Your task to perform on an android device: Open the phone app and click the voicemail tab. Image 0: 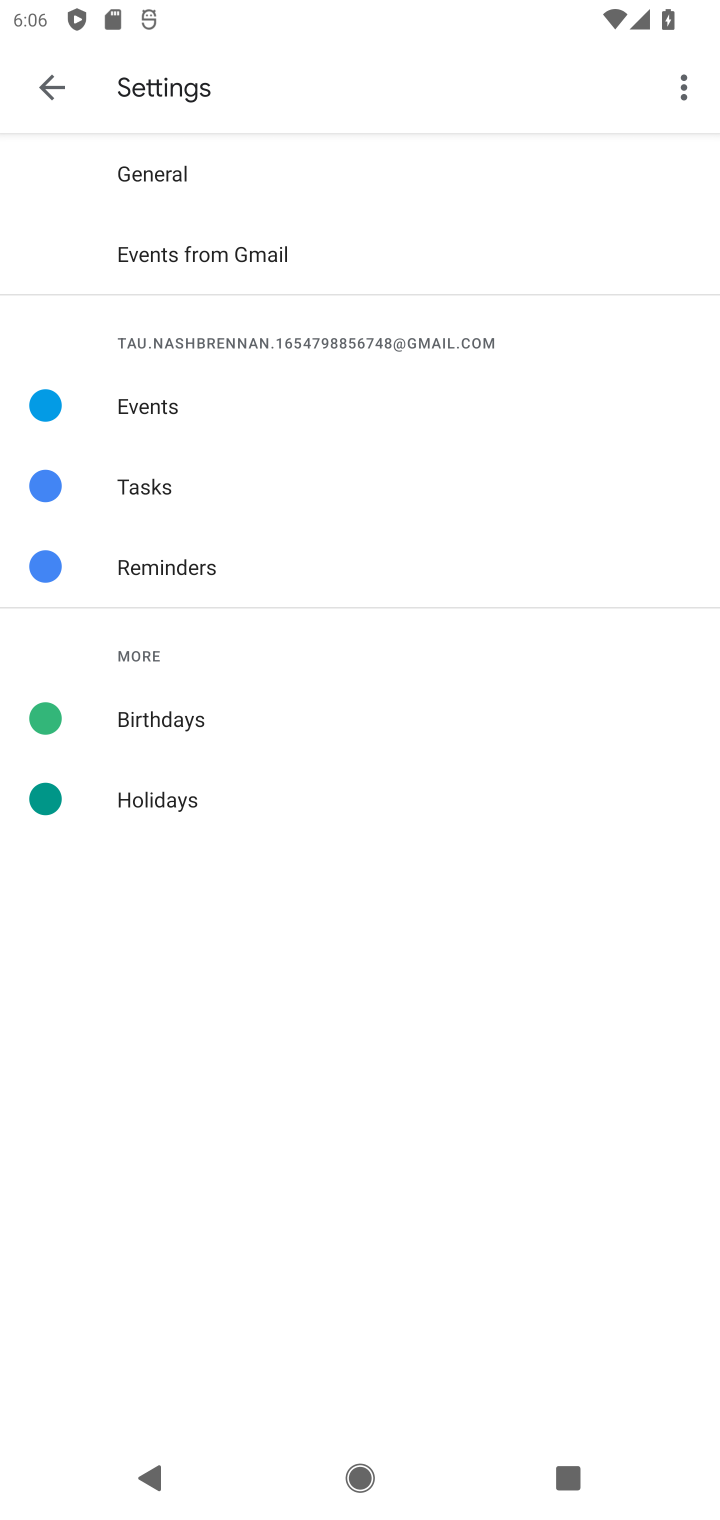
Step 0: press home button
Your task to perform on an android device: Open the phone app and click the voicemail tab. Image 1: 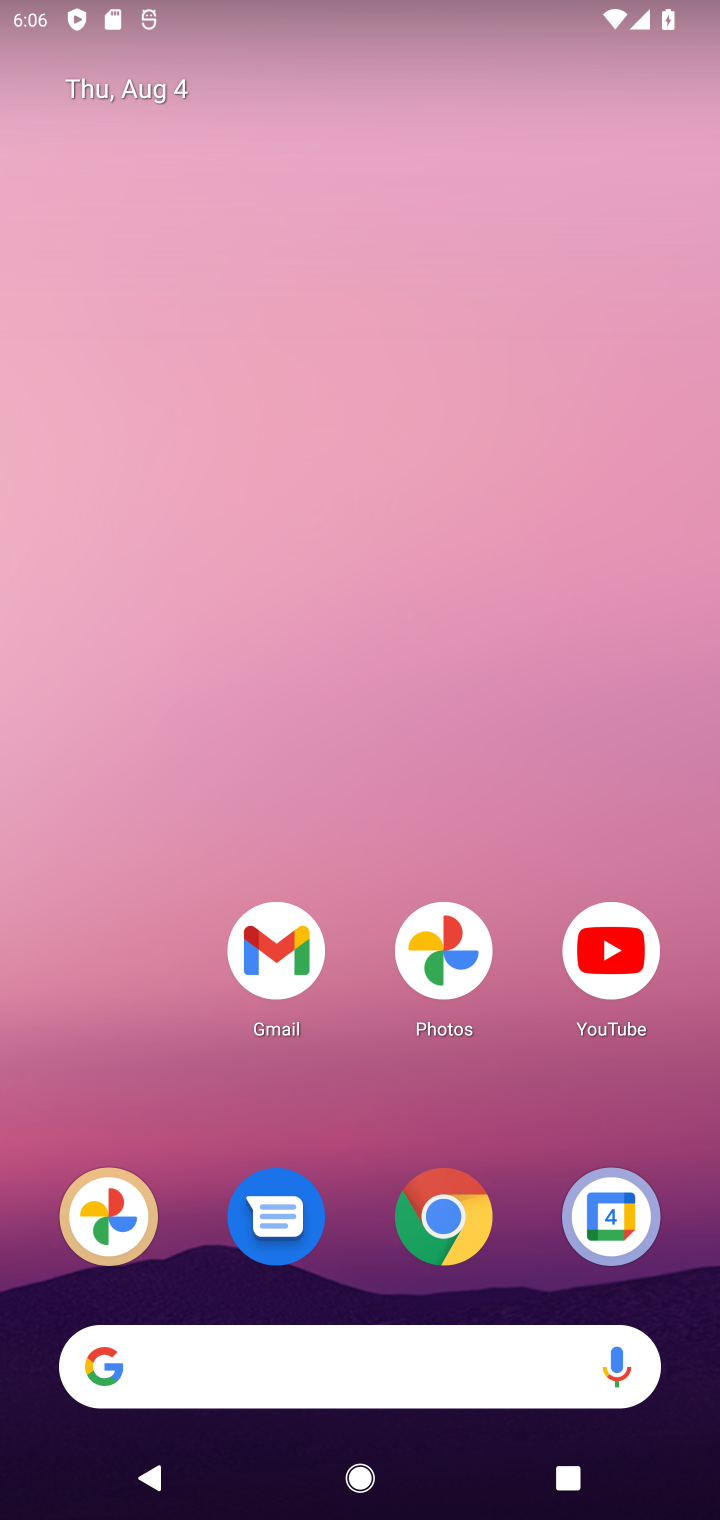
Step 1: drag from (576, 1137) to (458, 141)
Your task to perform on an android device: Open the phone app and click the voicemail tab. Image 2: 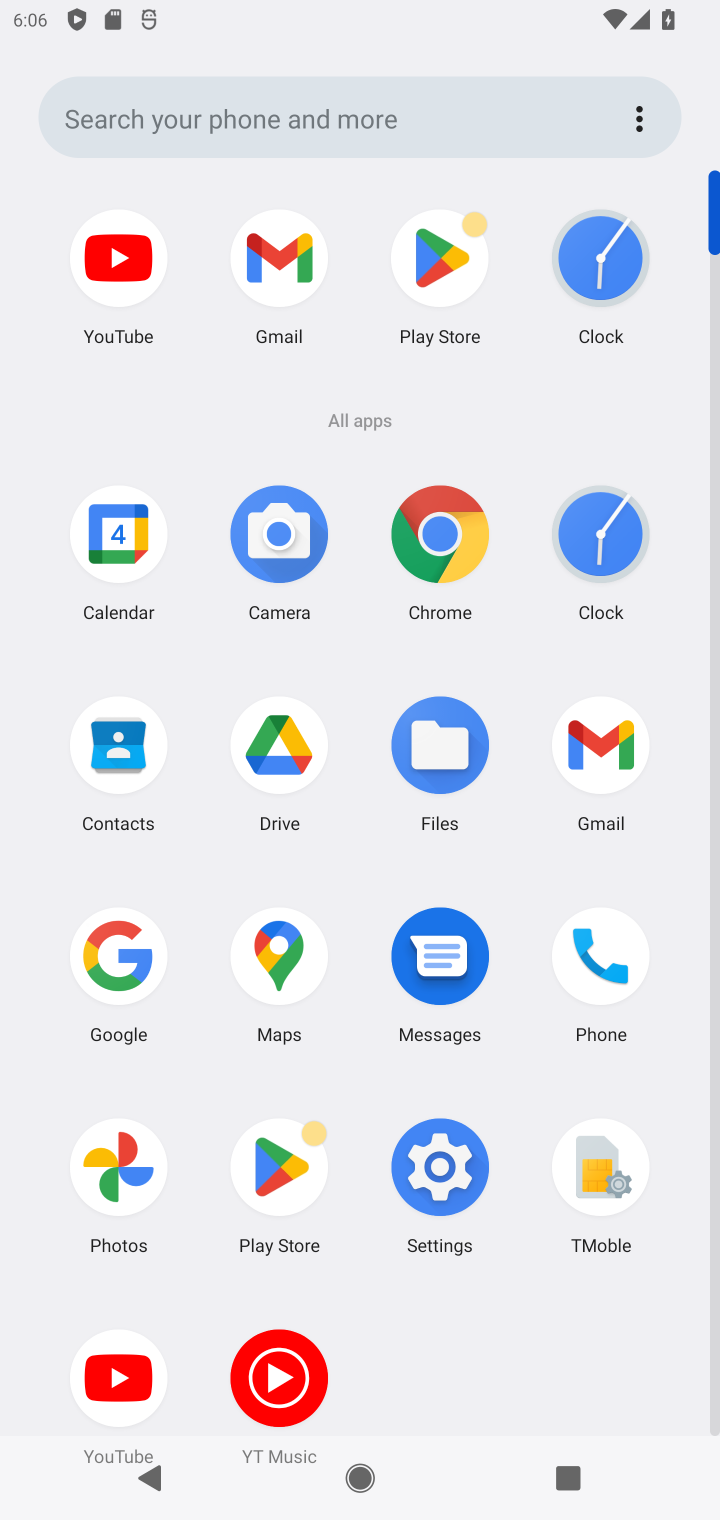
Step 2: click (621, 943)
Your task to perform on an android device: Open the phone app and click the voicemail tab. Image 3: 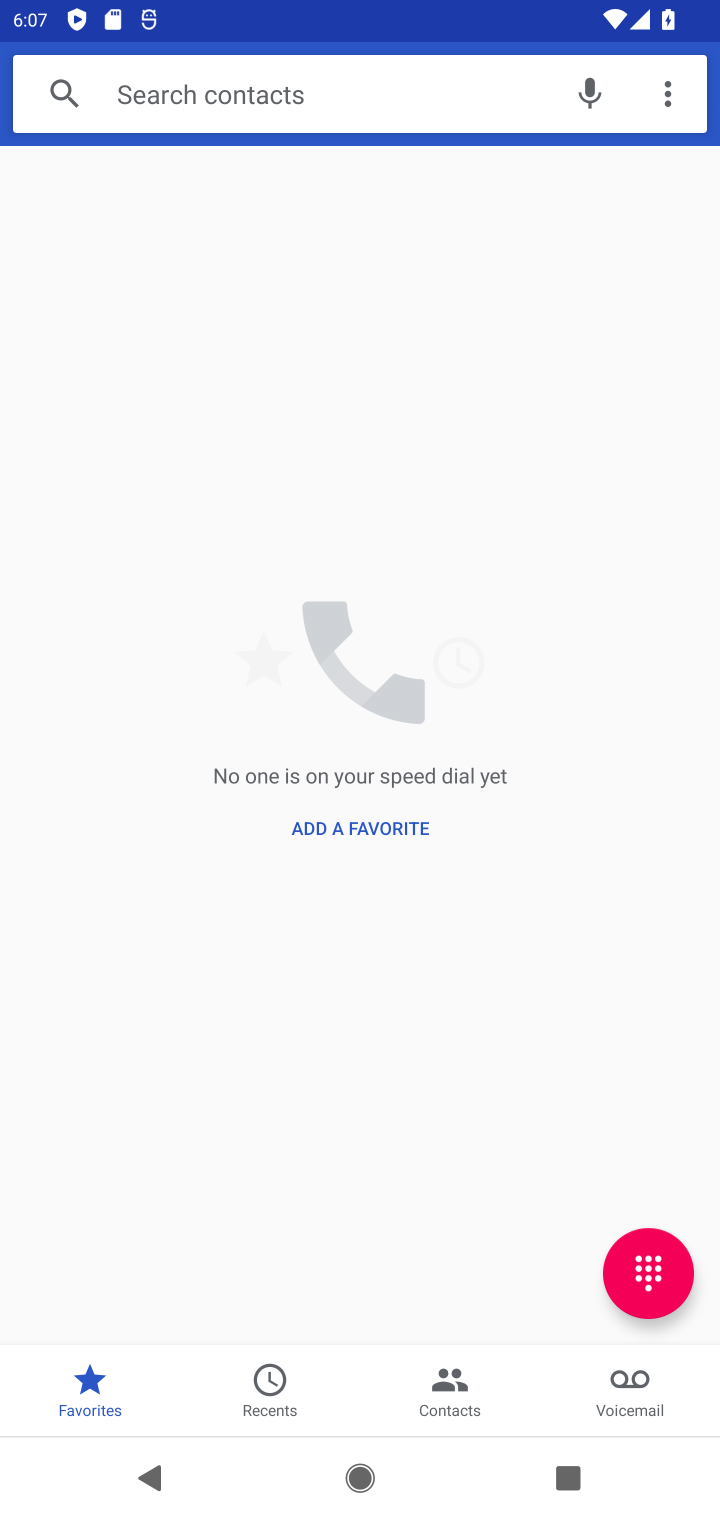
Step 3: click (632, 1371)
Your task to perform on an android device: Open the phone app and click the voicemail tab. Image 4: 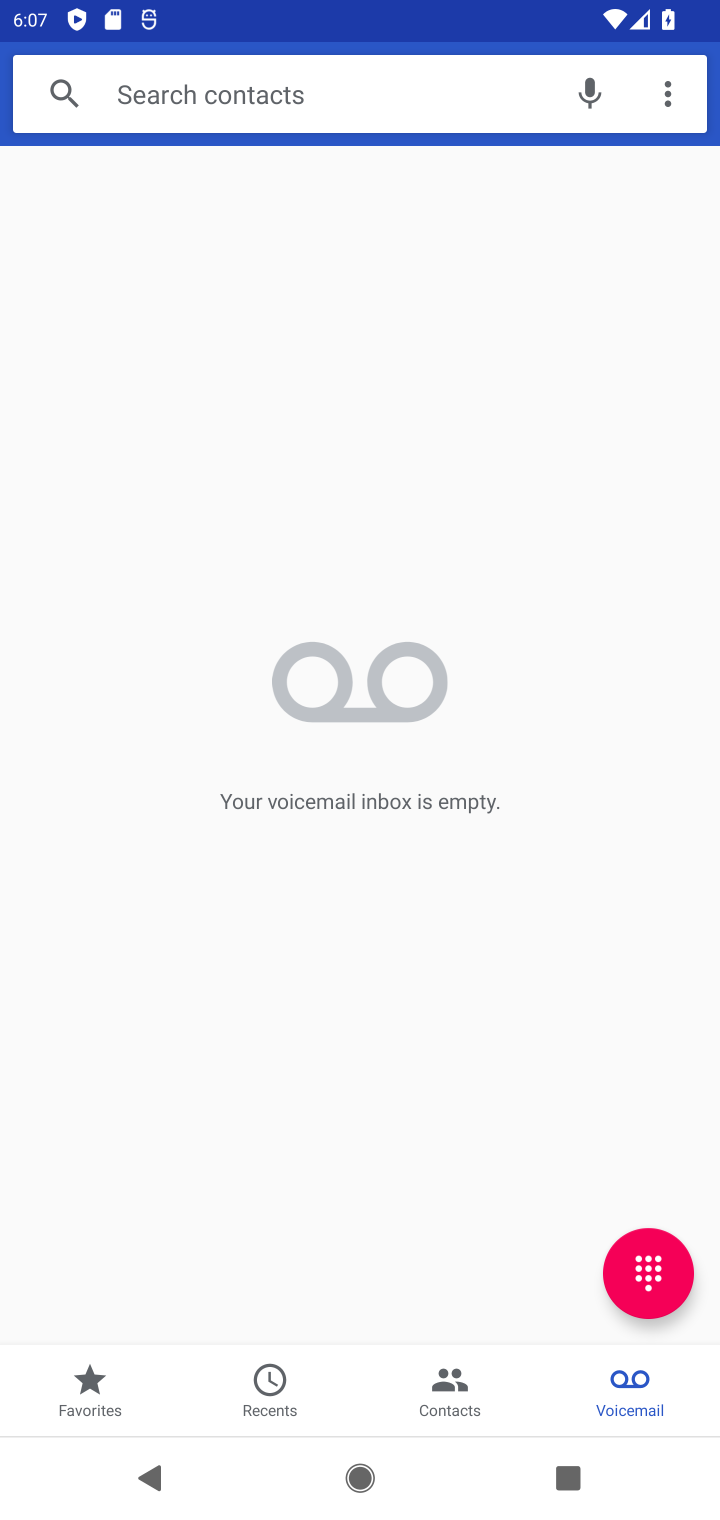
Step 4: task complete